Your task to perform on an android device: Go to internet settings Image 0: 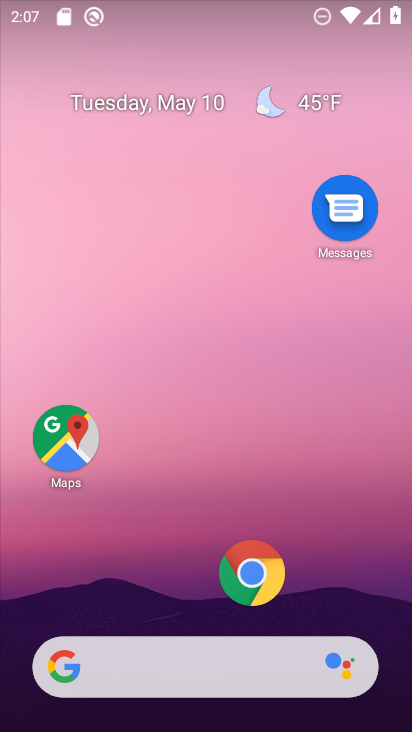
Step 0: drag from (205, 594) to (257, 199)
Your task to perform on an android device: Go to internet settings Image 1: 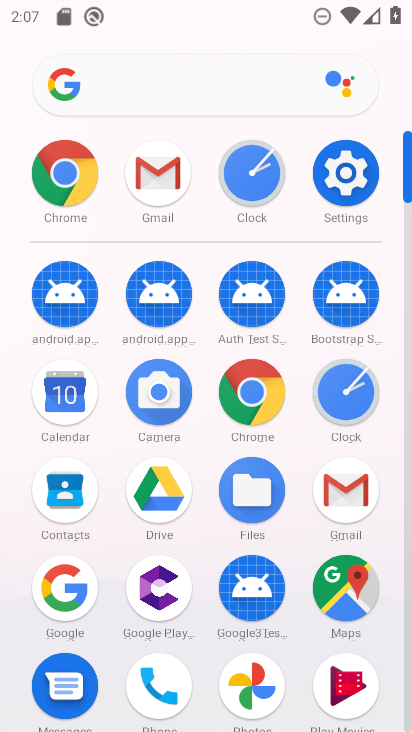
Step 1: click (332, 177)
Your task to perform on an android device: Go to internet settings Image 2: 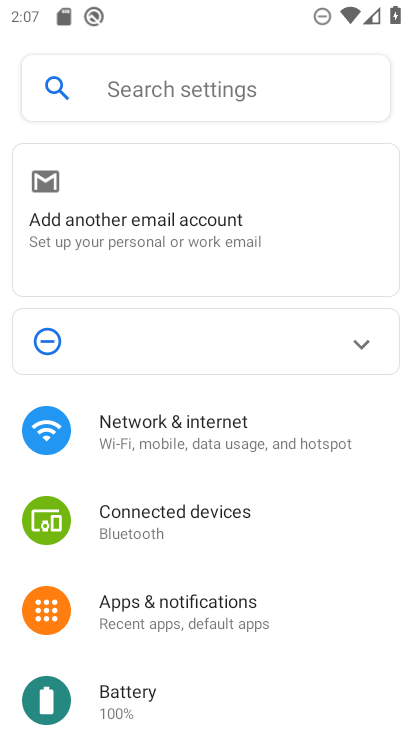
Step 2: drag from (196, 637) to (261, 200)
Your task to perform on an android device: Go to internet settings Image 3: 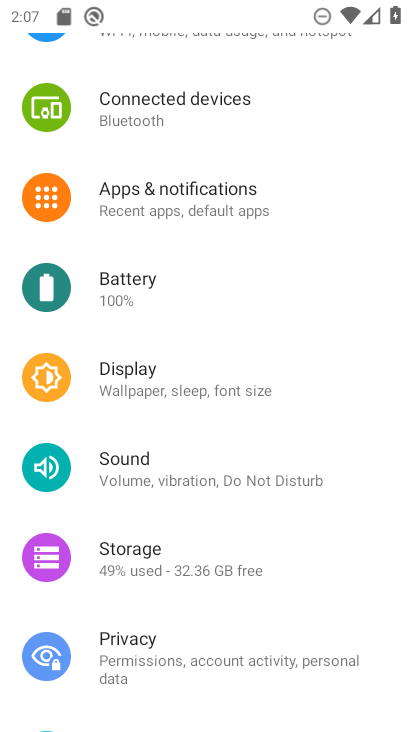
Step 3: drag from (223, 128) to (238, 417)
Your task to perform on an android device: Go to internet settings Image 4: 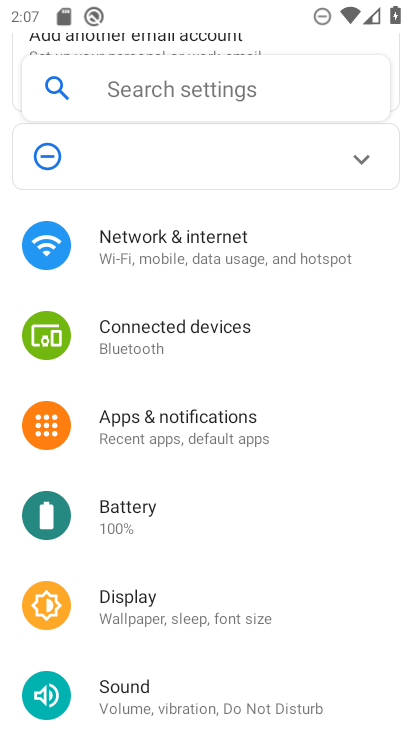
Step 4: click (221, 258)
Your task to perform on an android device: Go to internet settings Image 5: 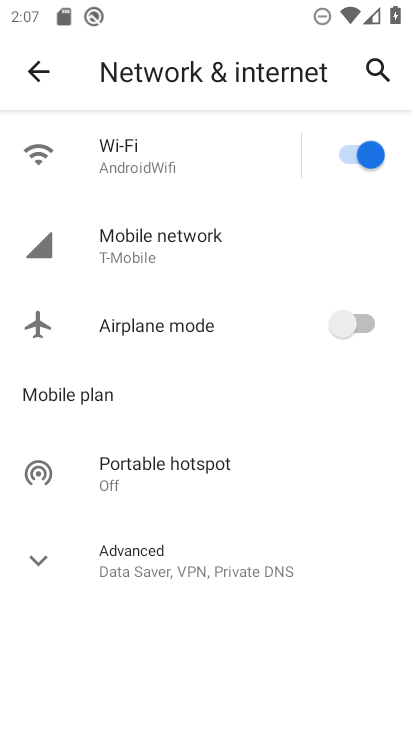
Step 5: drag from (200, 500) to (206, 225)
Your task to perform on an android device: Go to internet settings Image 6: 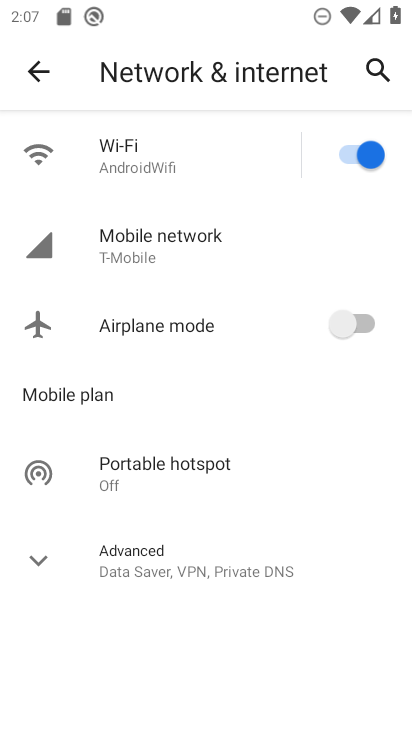
Step 6: click (244, 285)
Your task to perform on an android device: Go to internet settings Image 7: 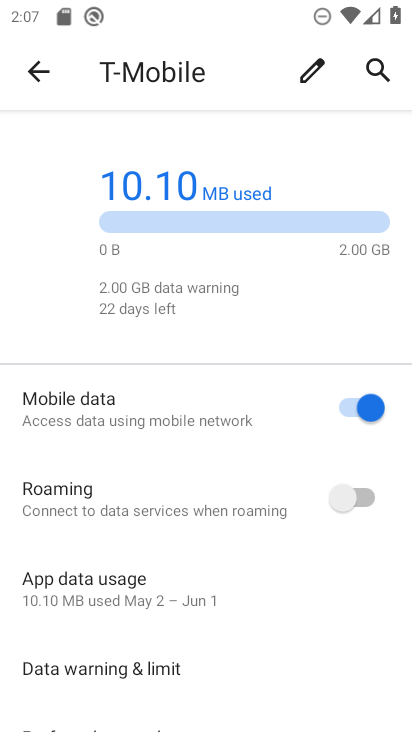
Step 7: click (39, 85)
Your task to perform on an android device: Go to internet settings Image 8: 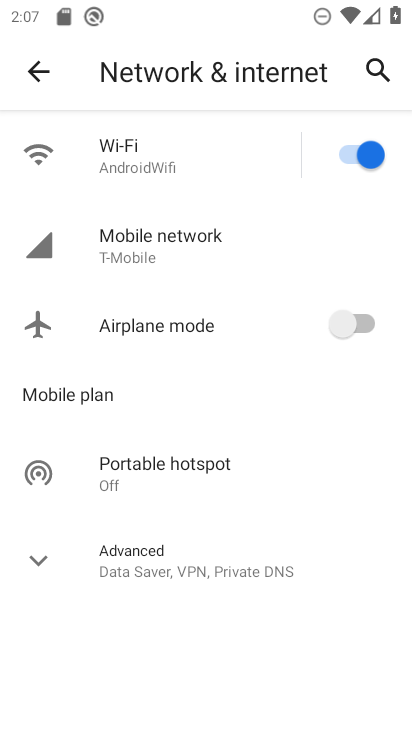
Step 8: click (262, 247)
Your task to perform on an android device: Go to internet settings Image 9: 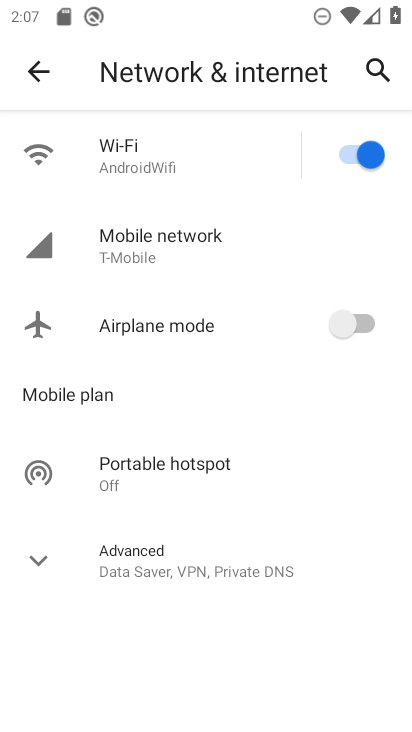
Step 9: task complete